Your task to perform on an android device: toggle notifications settings in the gmail app Image 0: 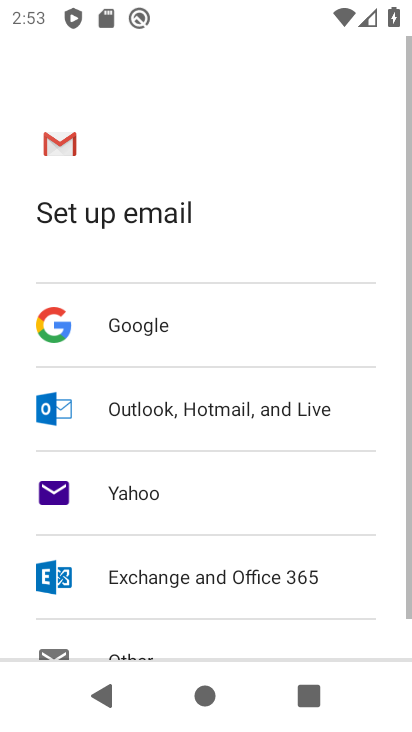
Step 0: press home button
Your task to perform on an android device: toggle notifications settings in the gmail app Image 1: 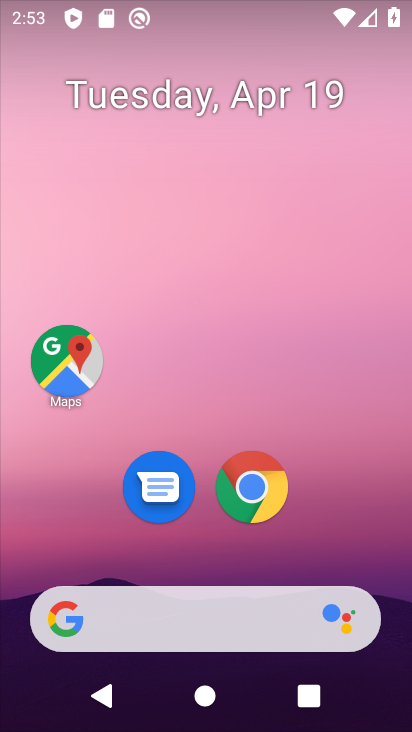
Step 1: drag from (211, 379) to (279, 53)
Your task to perform on an android device: toggle notifications settings in the gmail app Image 2: 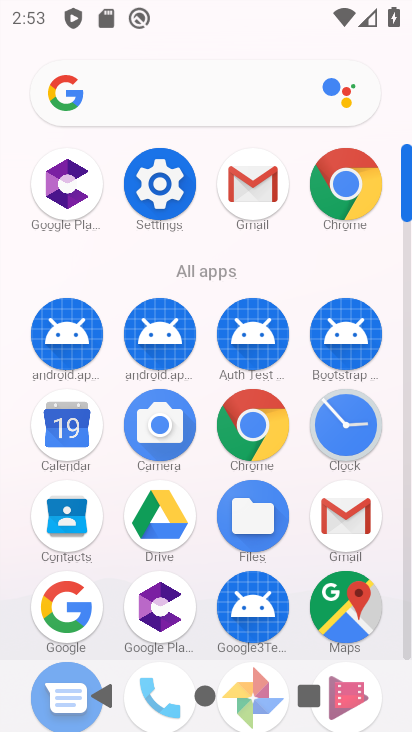
Step 2: click (247, 164)
Your task to perform on an android device: toggle notifications settings in the gmail app Image 3: 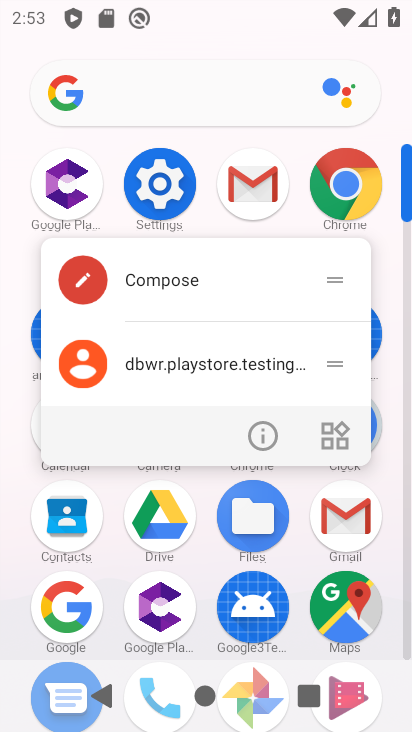
Step 3: click (255, 431)
Your task to perform on an android device: toggle notifications settings in the gmail app Image 4: 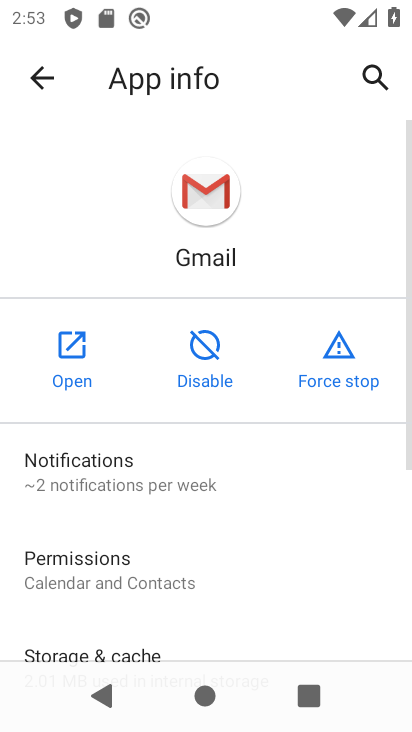
Step 4: click (170, 461)
Your task to perform on an android device: toggle notifications settings in the gmail app Image 5: 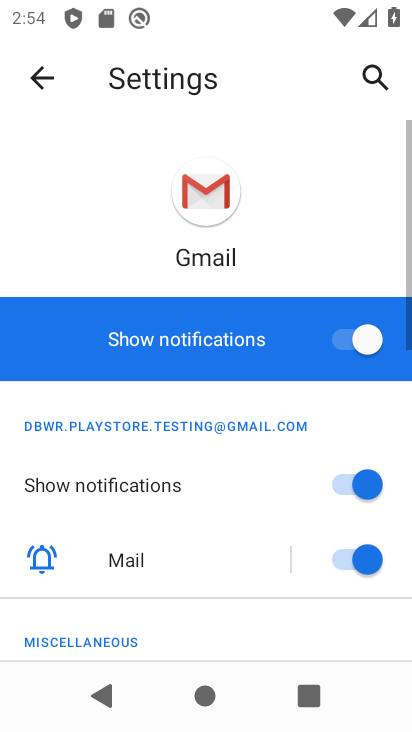
Step 5: click (360, 325)
Your task to perform on an android device: toggle notifications settings in the gmail app Image 6: 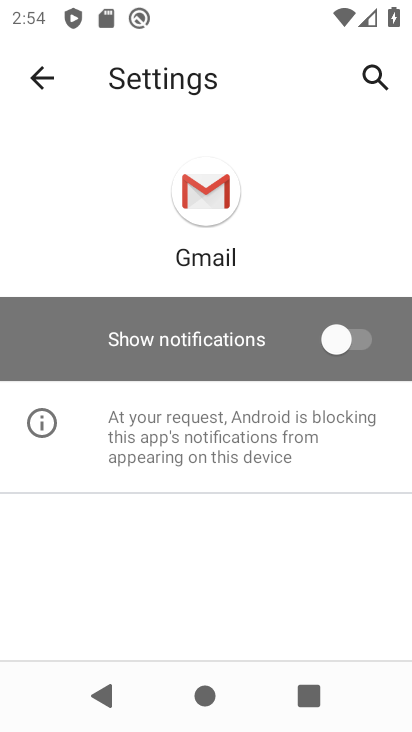
Step 6: task complete